Your task to perform on an android device: see tabs open on other devices in the chrome app Image 0: 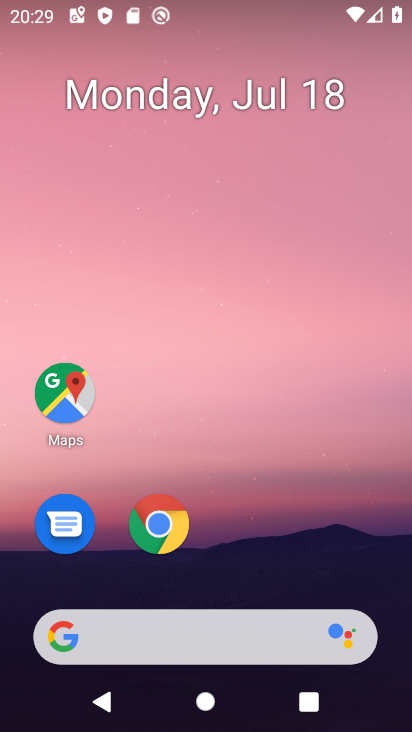
Step 0: click (164, 529)
Your task to perform on an android device: see tabs open on other devices in the chrome app Image 1: 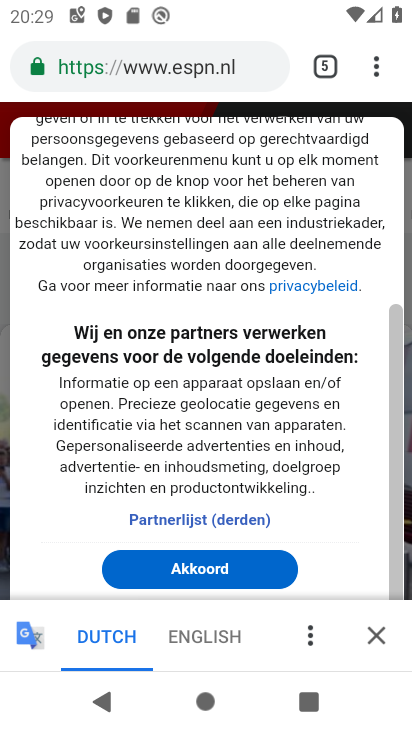
Step 1: click (197, 634)
Your task to perform on an android device: see tabs open on other devices in the chrome app Image 2: 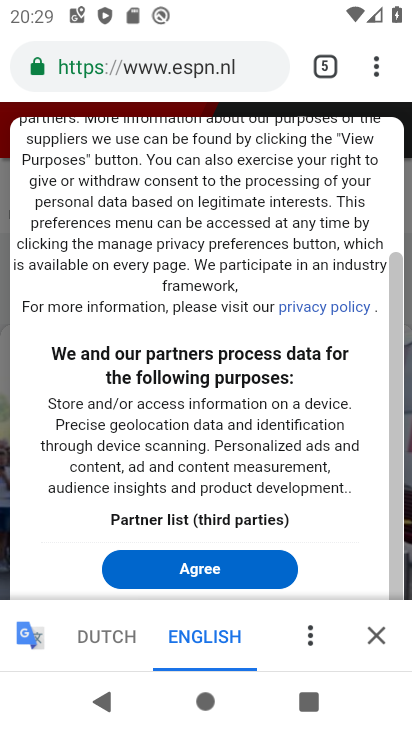
Step 2: click (241, 573)
Your task to perform on an android device: see tabs open on other devices in the chrome app Image 3: 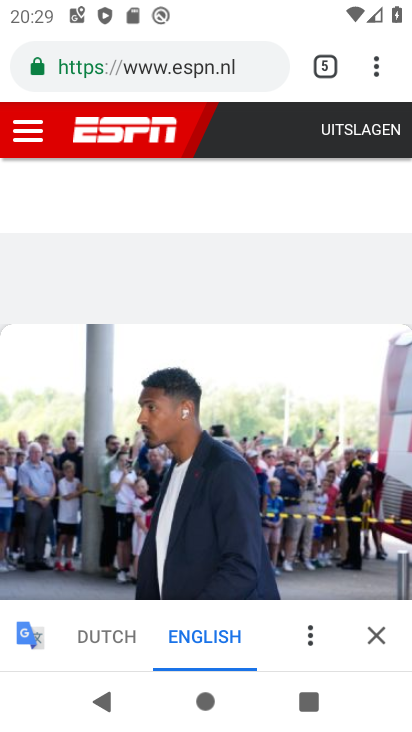
Step 3: click (372, 61)
Your task to perform on an android device: see tabs open on other devices in the chrome app Image 4: 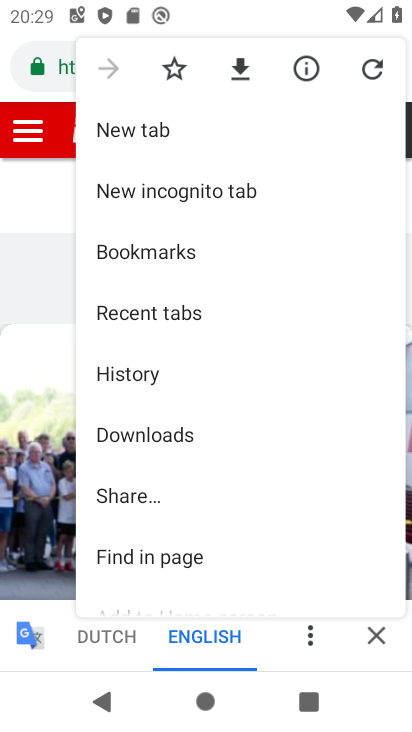
Step 4: click (178, 308)
Your task to perform on an android device: see tabs open on other devices in the chrome app Image 5: 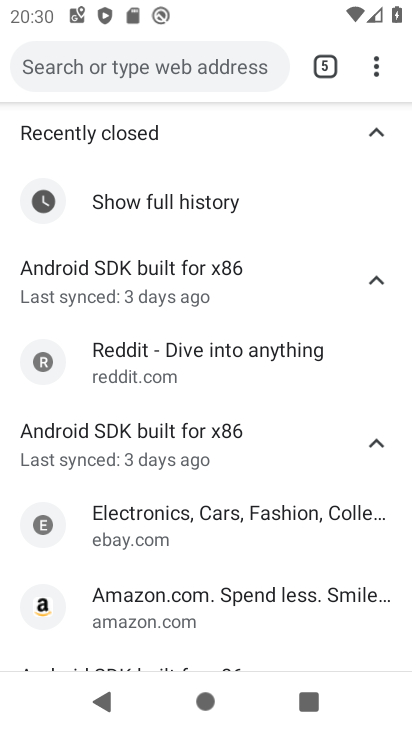
Step 5: task complete